Your task to perform on an android device: Go to Android settings Image 0: 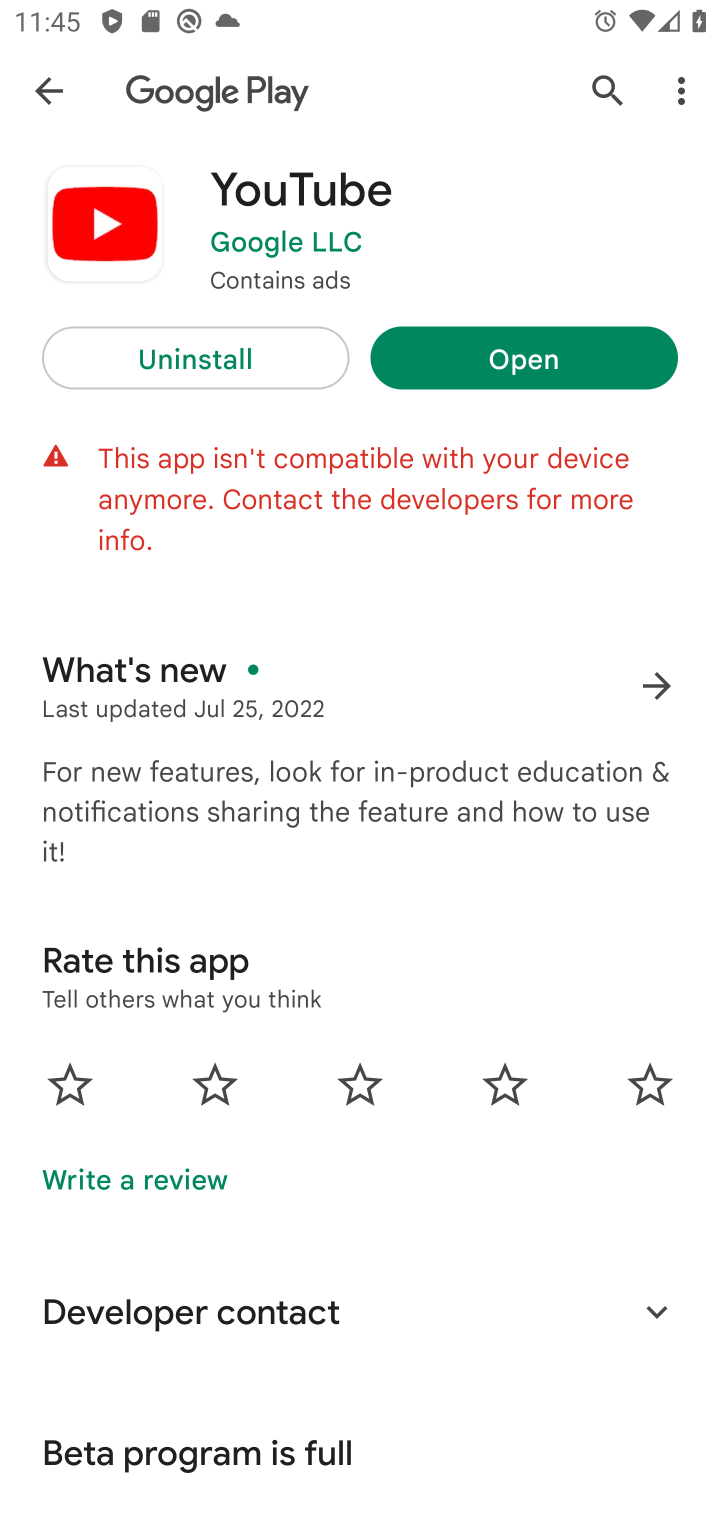
Step 0: press home button
Your task to perform on an android device: Go to Android settings Image 1: 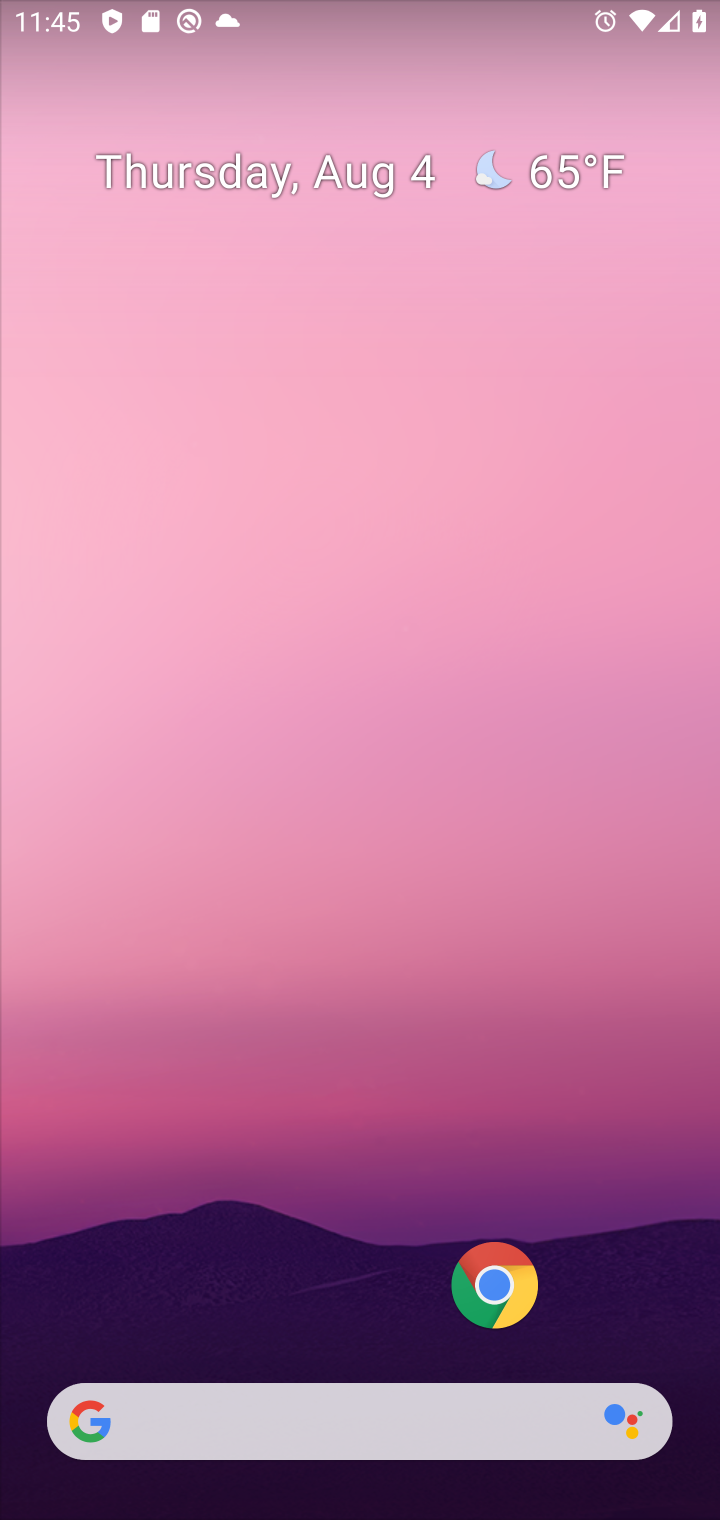
Step 1: drag from (221, 1221) to (221, 206)
Your task to perform on an android device: Go to Android settings Image 2: 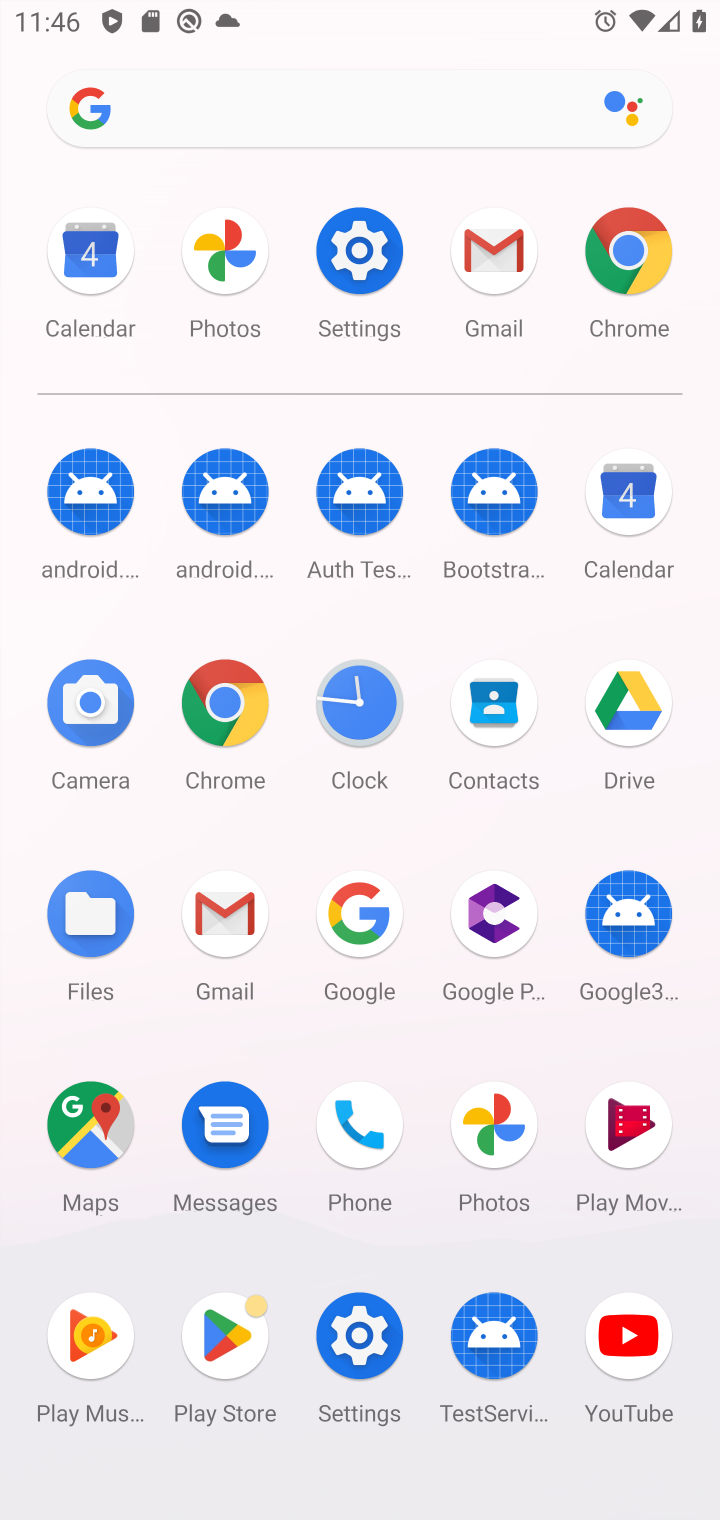
Step 2: click (323, 1351)
Your task to perform on an android device: Go to Android settings Image 3: 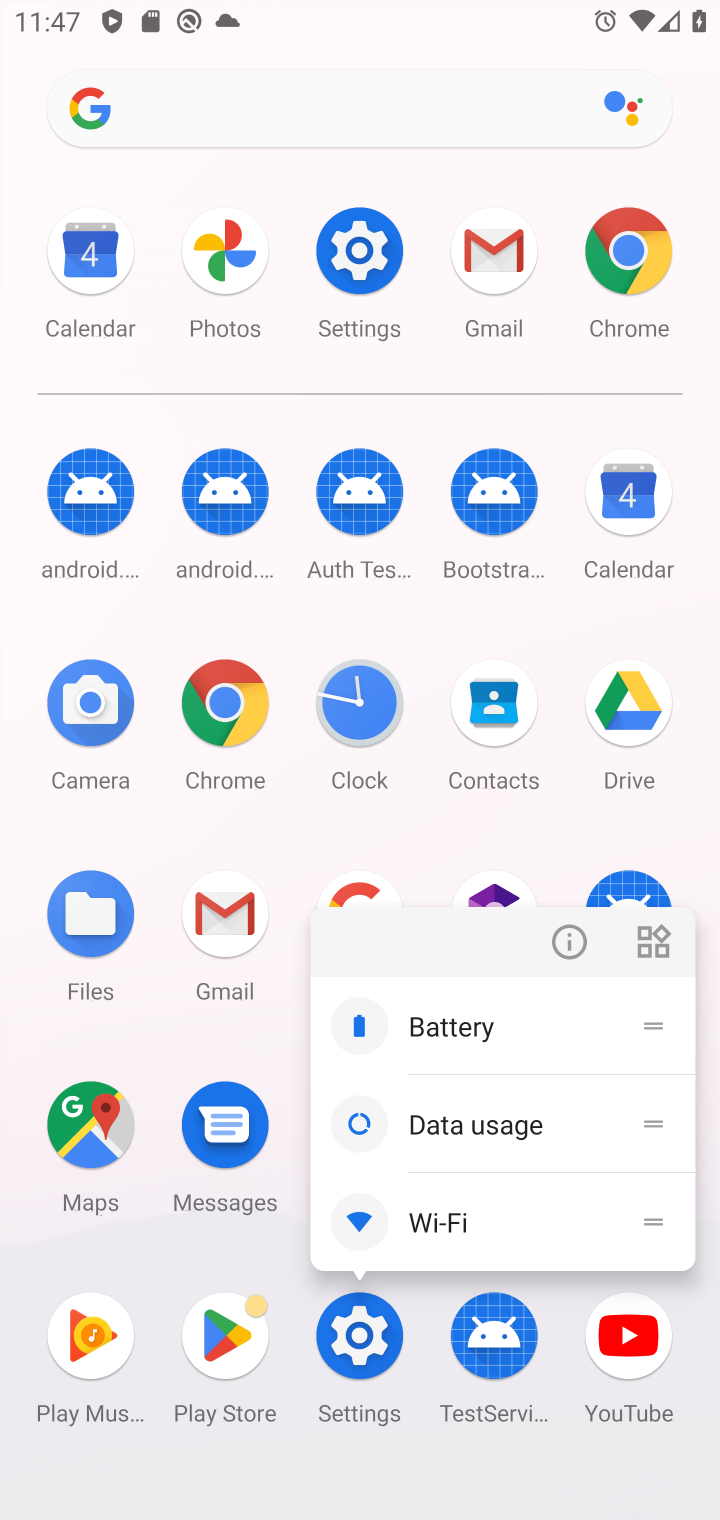
Step 3: click (357, 1342)
Your task to perform on an android device: Go to Android settings Image 4: 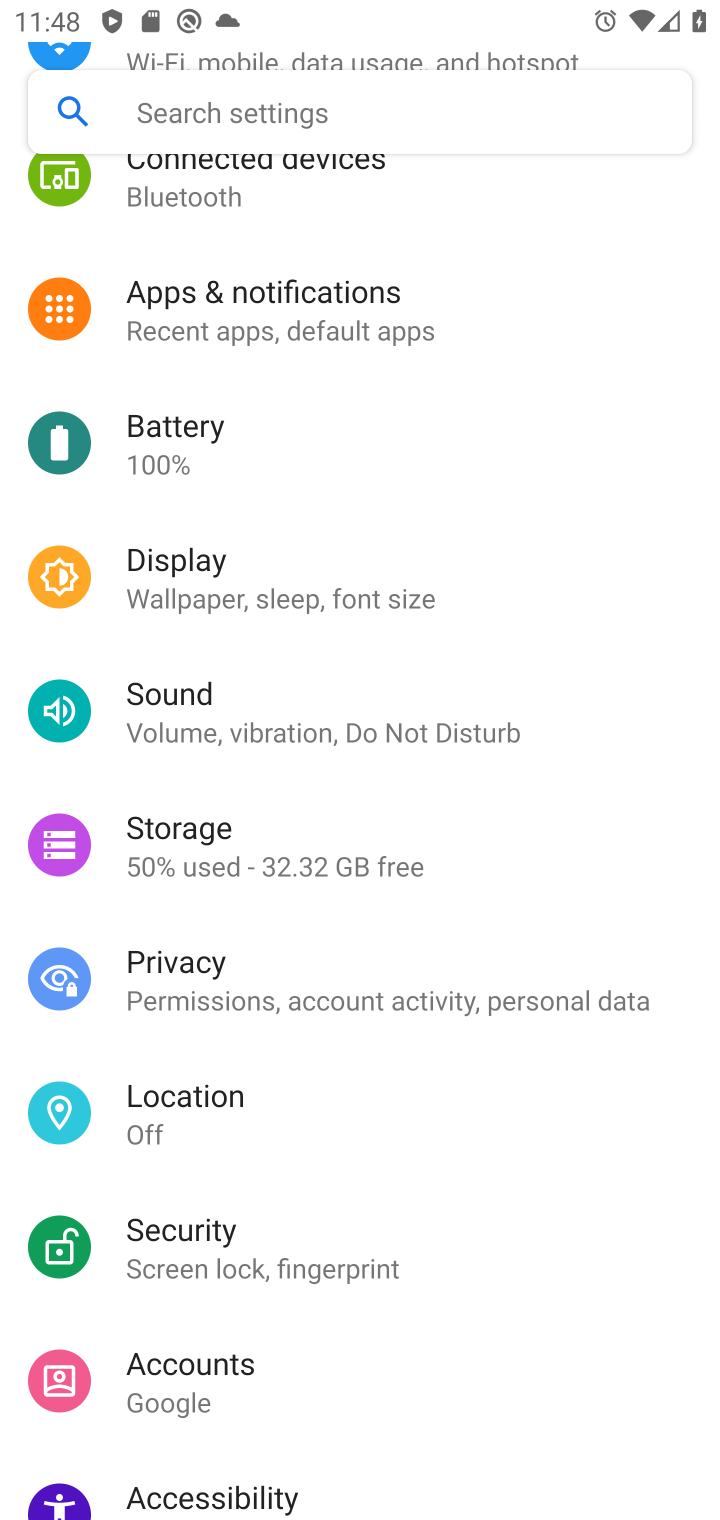
Step 4: click (357, 1342)
Your task to perform on an android device: Go to Android settings Image 5: 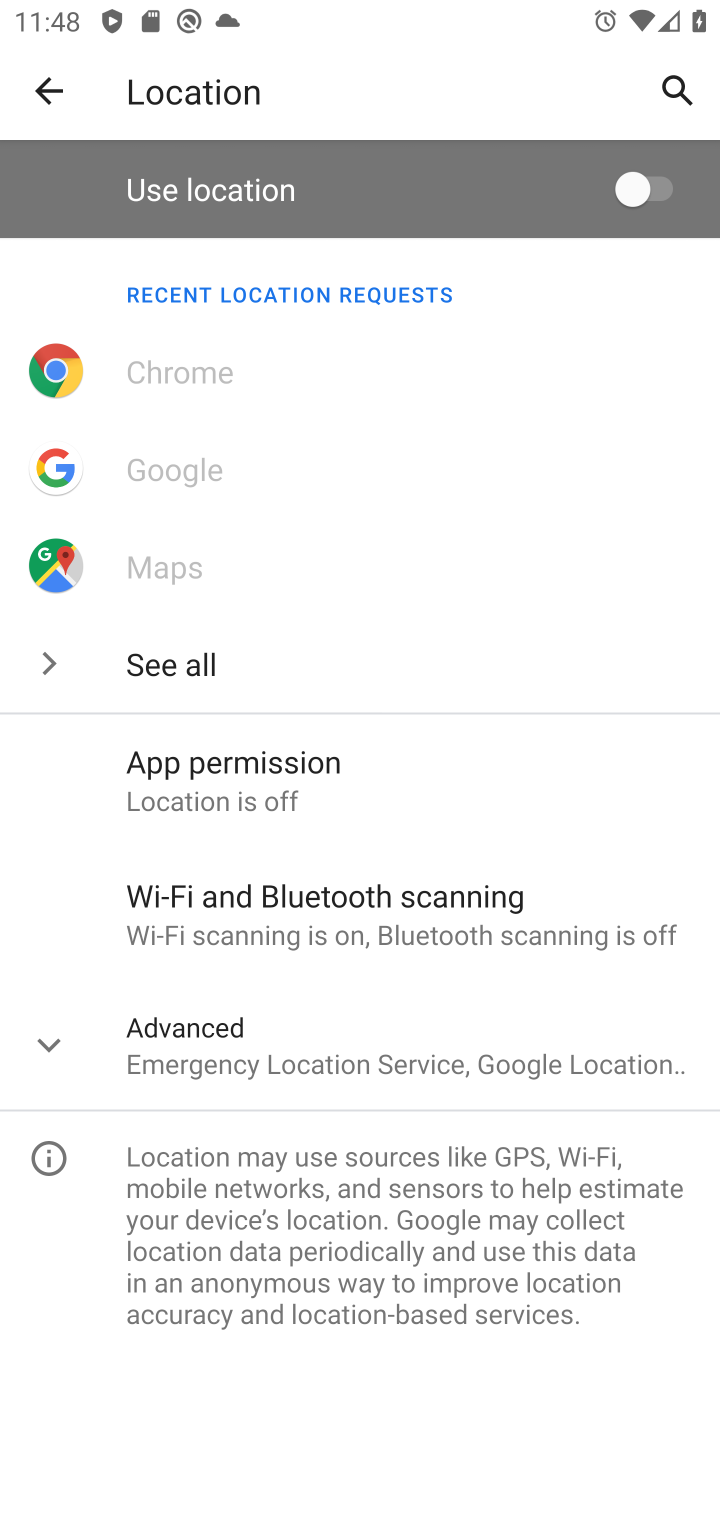
Step 5: press back button
Your task to perform on an android device: Go to Android settings Image 6: 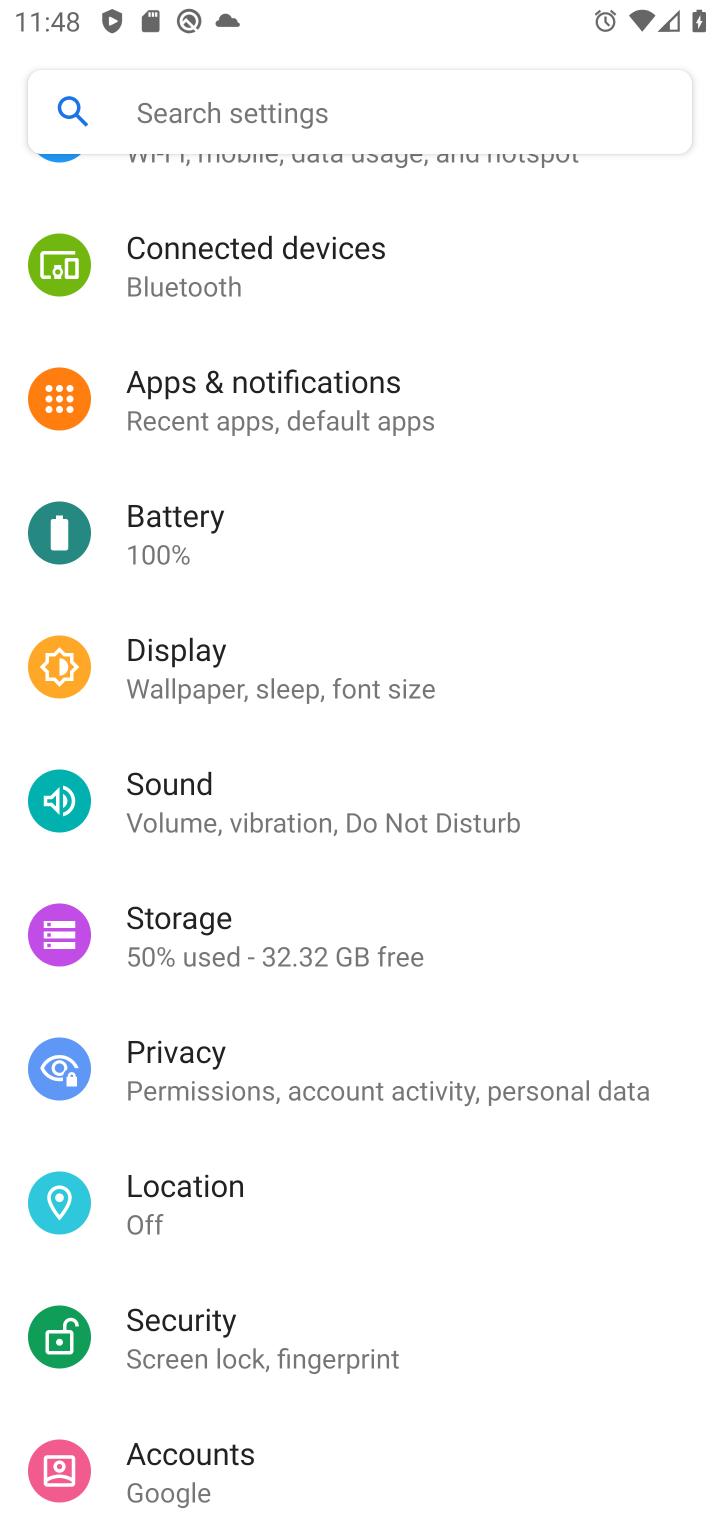
Step 6: drag from (377, 1159) to (620, 430)
Your task to perform on an android device: Go to Android settings Image 7: 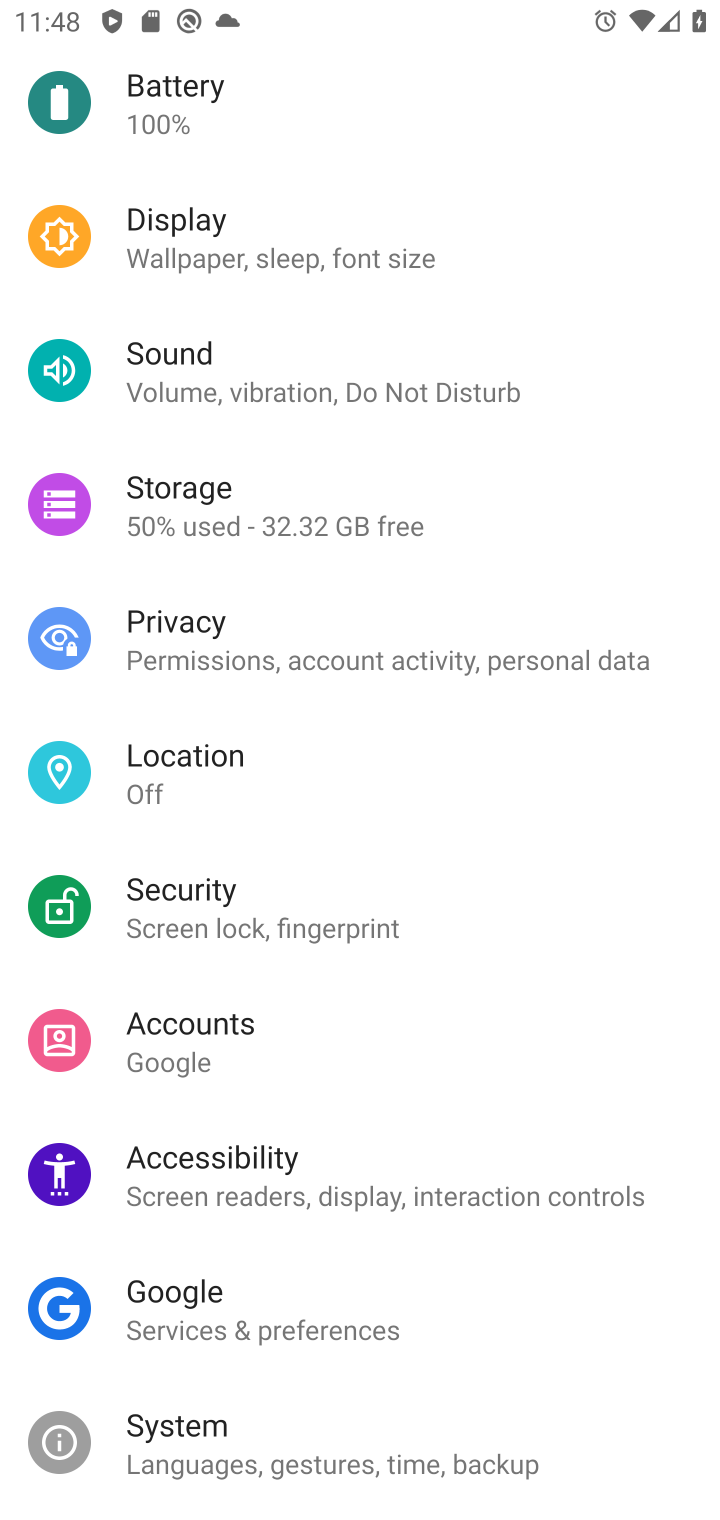
Step 7: drag from (186, 1506) to (312, 755)
Your task to perform on an android device: Go to Android settings Image 8: 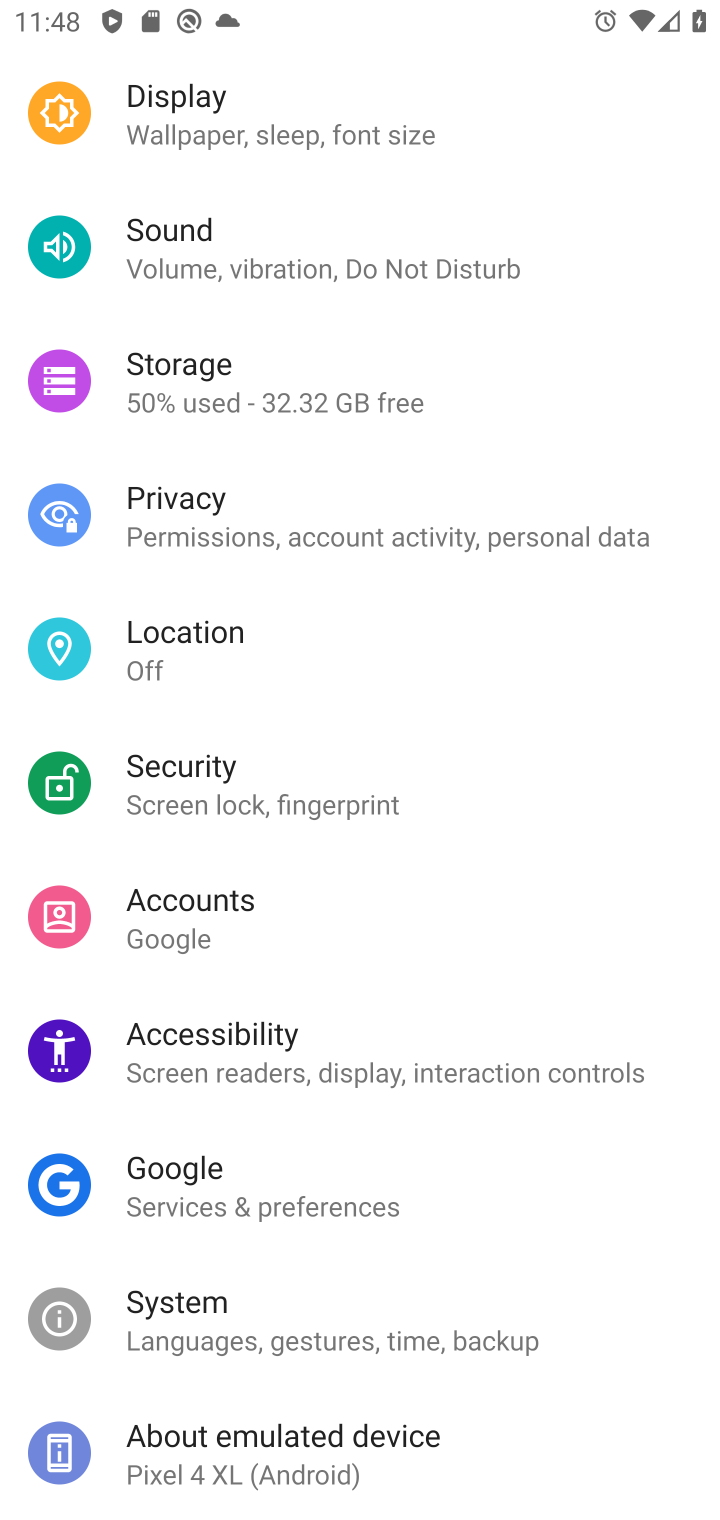
Step 8: click (231, 1446)
Your task to perform on an android device: Go to Android settings Image 9: 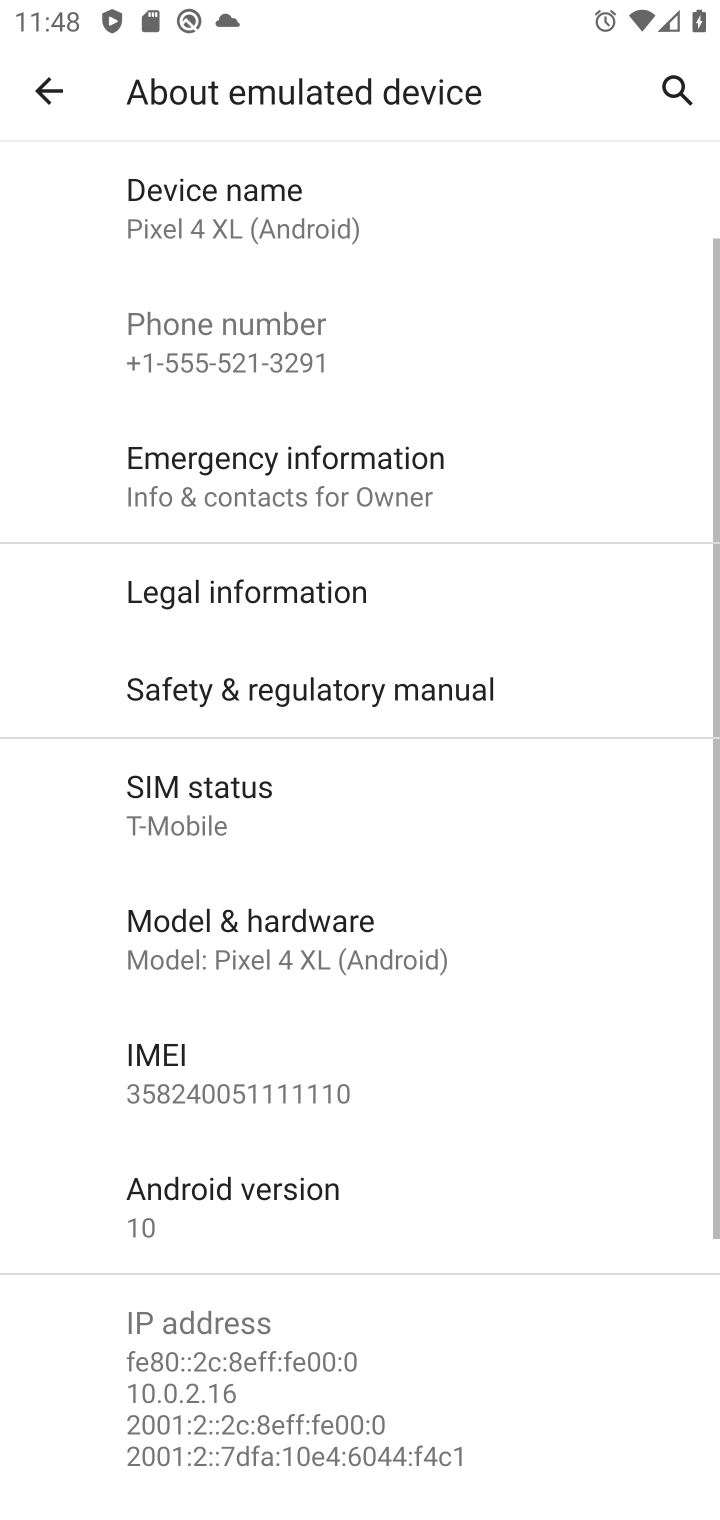
Step 9: click (259, 1193)
Your task to perform on an android device: Go to Android settings Image 10: 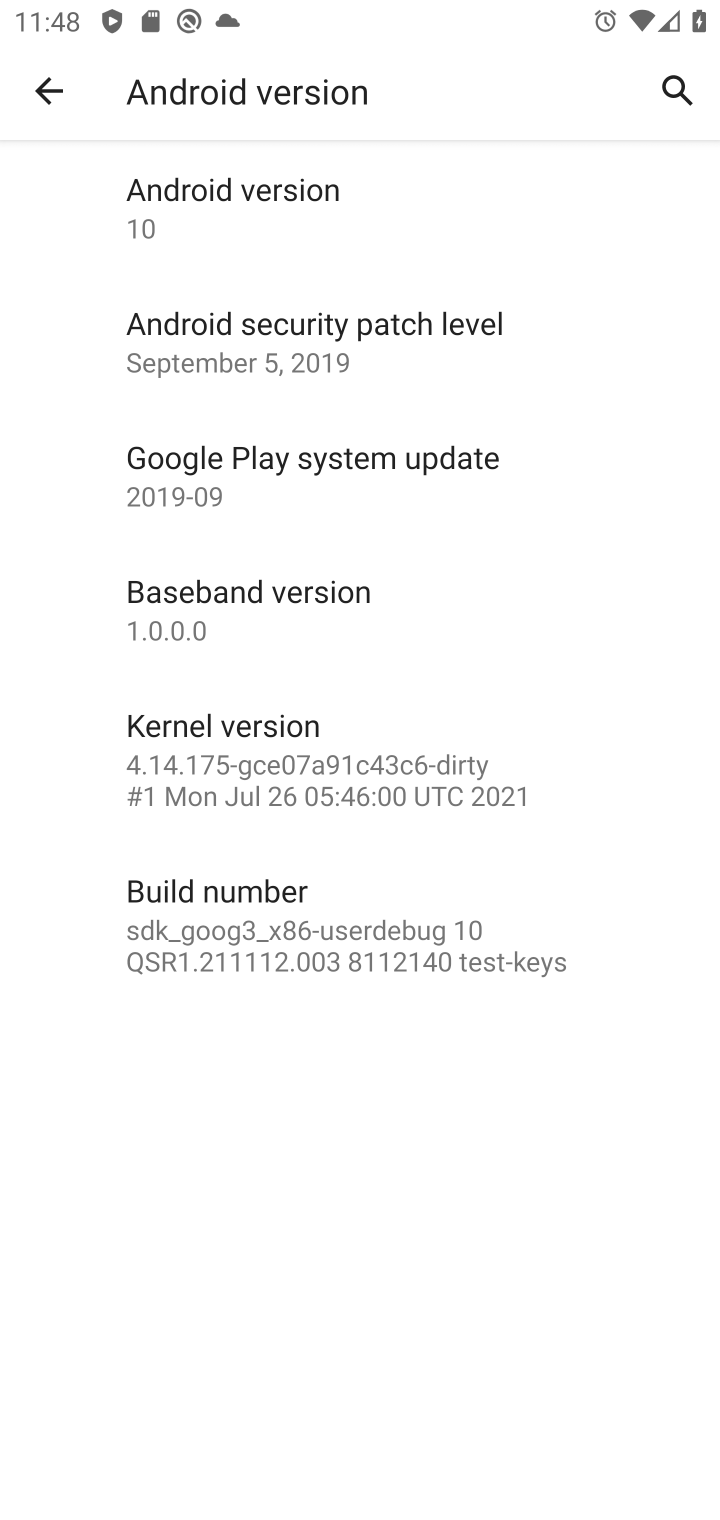
Step 10: task complete